Your task to perform on an android device: uninstall "Life360: Find Family & Friends" Image 0: 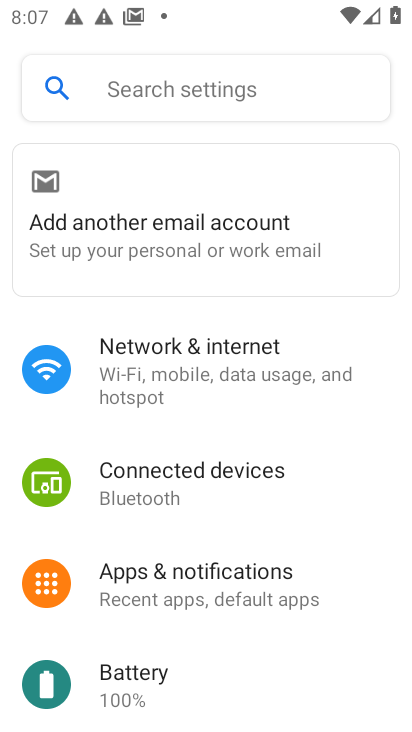
Step 0: press home button
Your task to perform on an android device: uninstall "Life360: Find Family & Friends" Image 1: 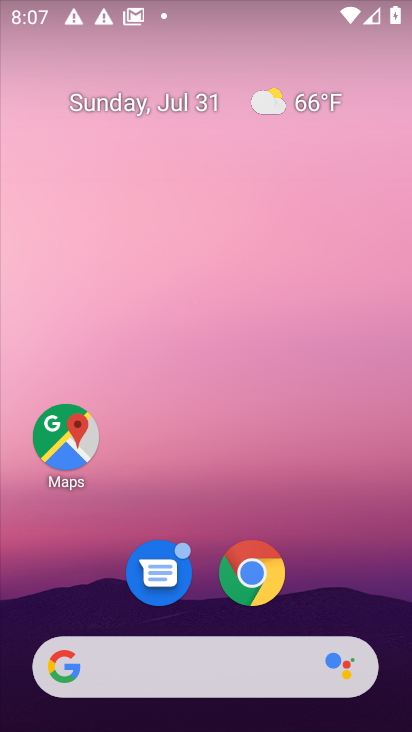
Step 1: drag from (194, 610) to (231, 10)
Your task to perform on an android device: uninstall "Life360: Find Family & Friends" Image 2: 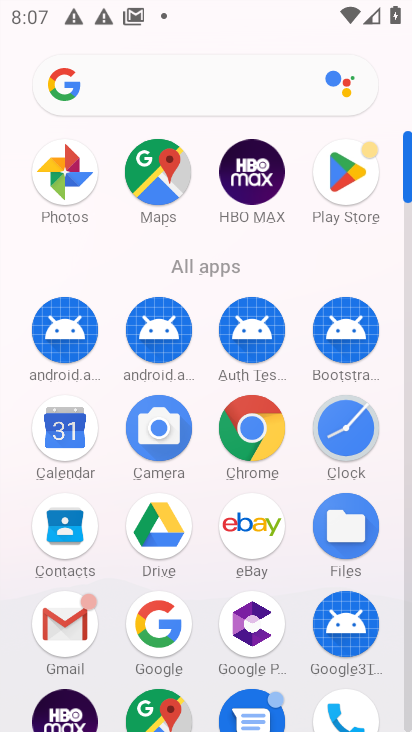
Step 2: click (350, 195)
Your task to perform on an android device: uninstall "Life360: Find Family & Friends" Image 3: 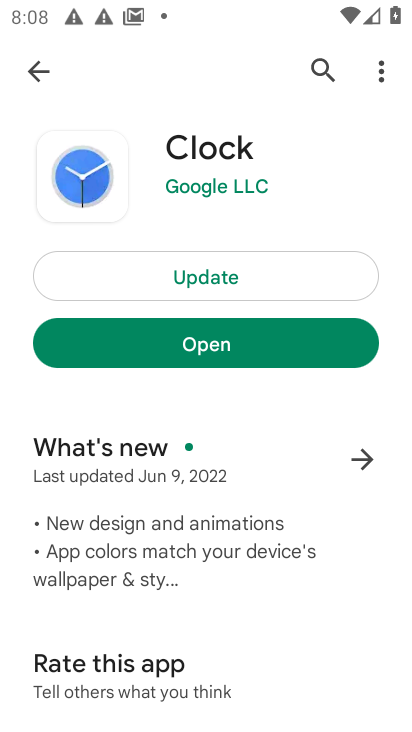
Step 3: click (33, 65)
Your task to perform on an android device: uninstall "Life360: Find Family & Friends" Image 4: 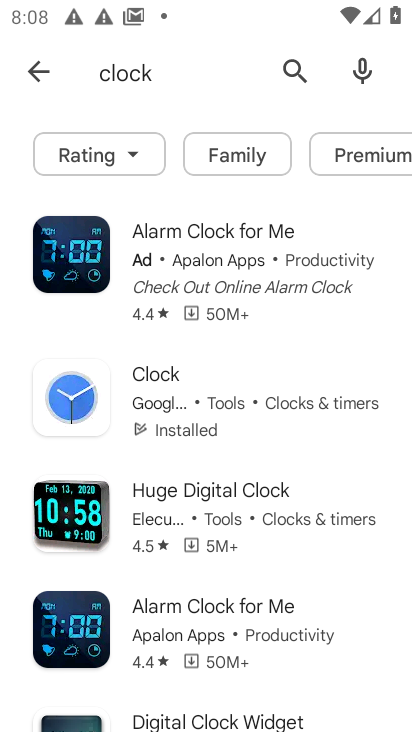
Step 4: click (123, 77)
Your task to perform on an android device: uninstall "Life360: Find Family & Friends" Image 5: 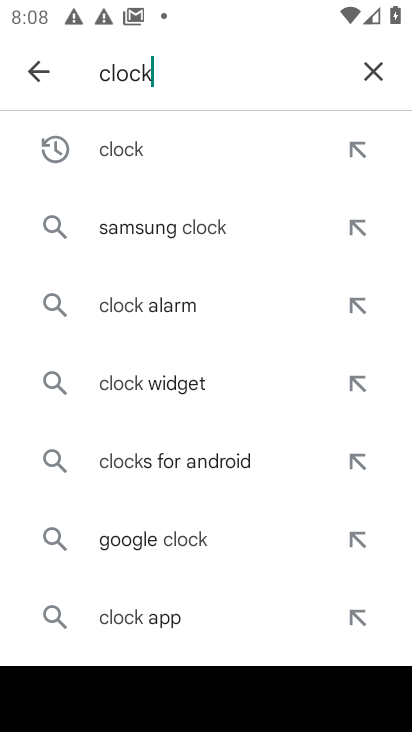
Step 5: click (365, 63)
Your task to perform on an android device: uninstall "Life360: Find Family & Friends" Image 6: 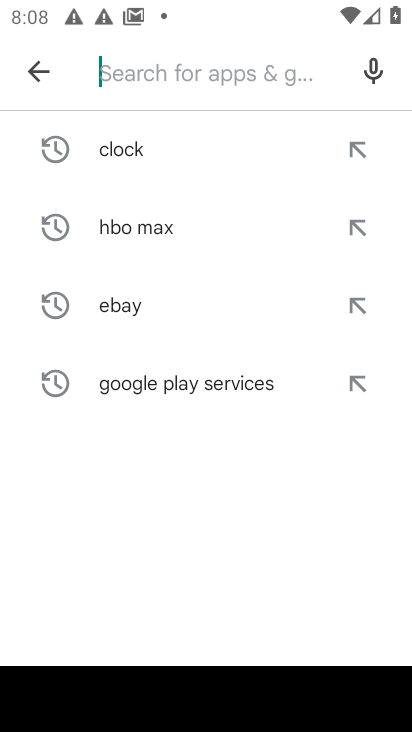
Step 6: type "life360"
Your task to perform on an android device: uninstall "Life360: Find Family & Friends" Image 7: 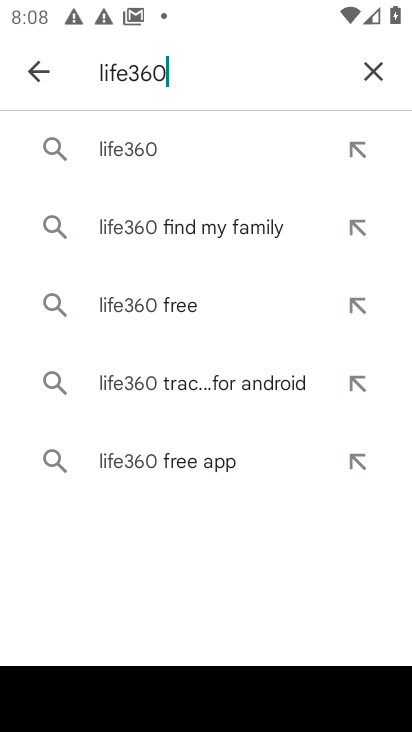
Step 7: click (135, 162)
Your task to perform on an android device: uninstall "Life360: Find Family & Friends" Image 8: 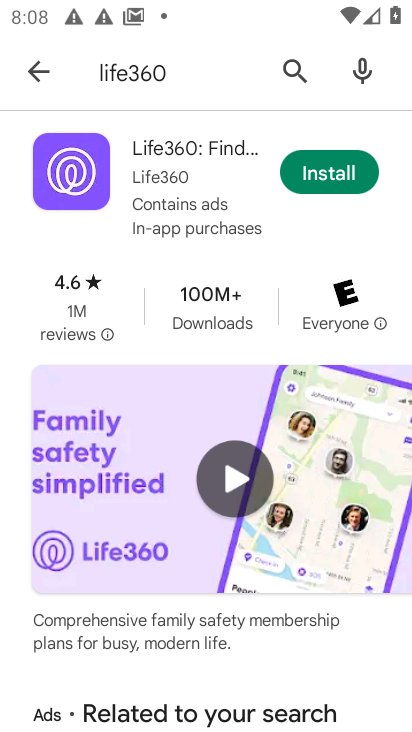
Step 8: task complete